Your task to perform on an android device: change alarm snooze length Image 0: 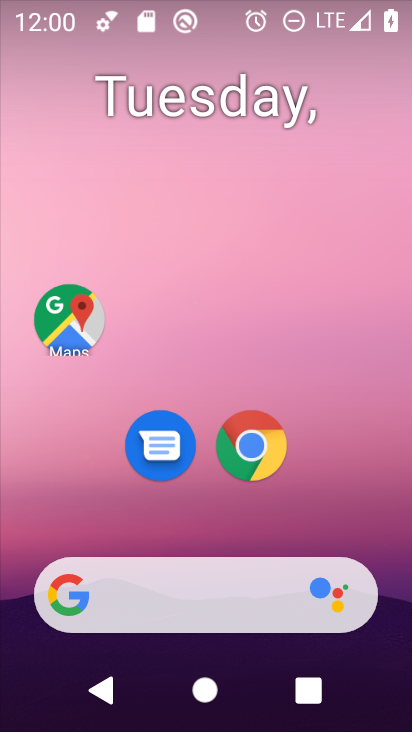
Step 0: drag from (326, 507) to (245, 78)
Your task to perform on an android device: change alarm snooze length Image 1: 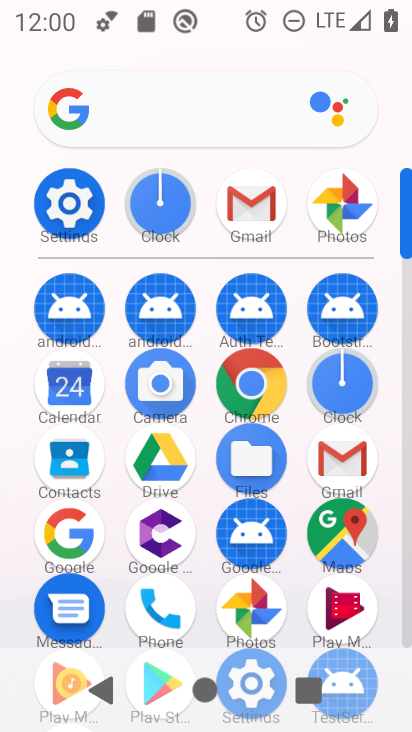
Step 1: click (151, 190)
Your task to perform on an android device: change alarm snooze length Image 2: 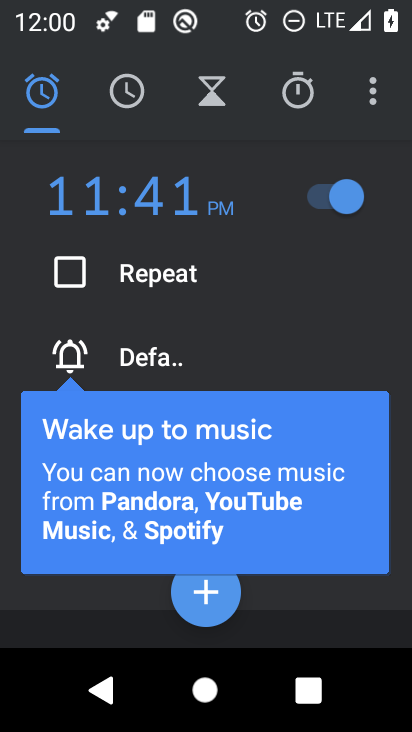
Step 2: click (371, 90)
Your task to perform on an android device: change alarm snooze length Image 3: 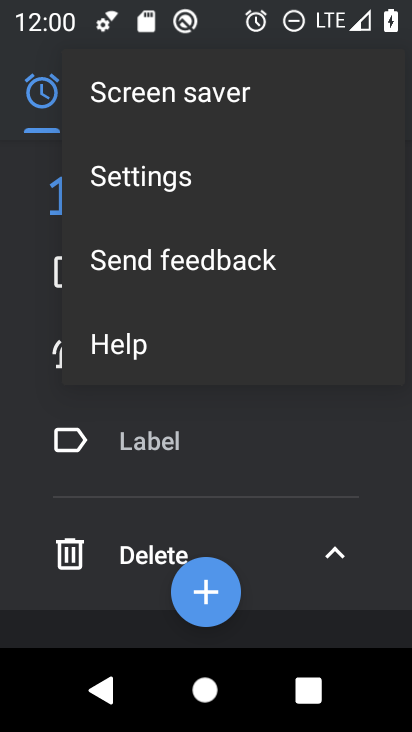
Step 3: click (166, 173)
Your task to perform on an android device: change alarm snooze length Image 4: 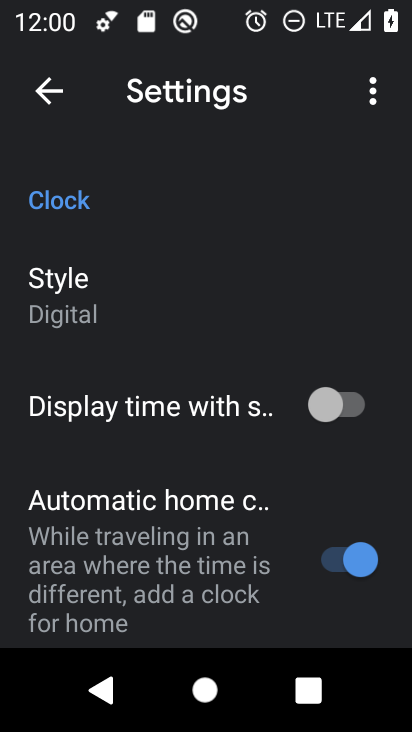
Step 4: drag from (253, 451) to (199, 164)
Your task to perform on an android device: change alarm snooze length Image 5: 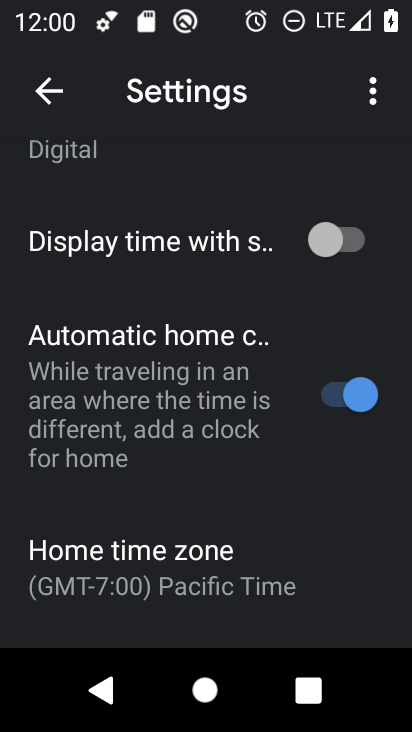
Step 5: drag from (277, 520) to (238, 225)
Your task to perform on an android device: change alarm snooze length Image 6: 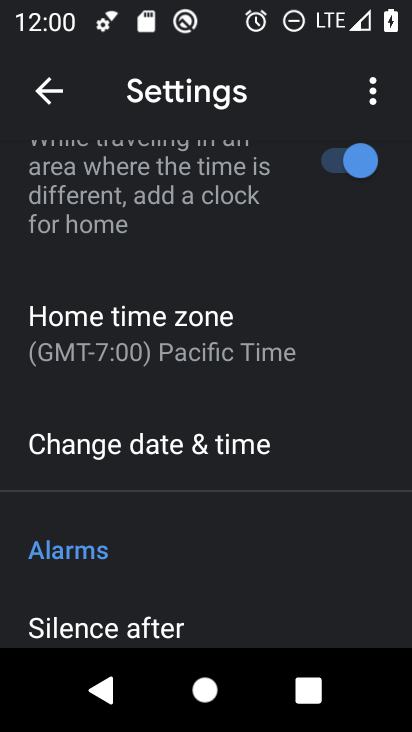
Step 6: drag from (208, 524) to (180, 182)
Your task to perform on an android device: change alarm snooze length Image 7: 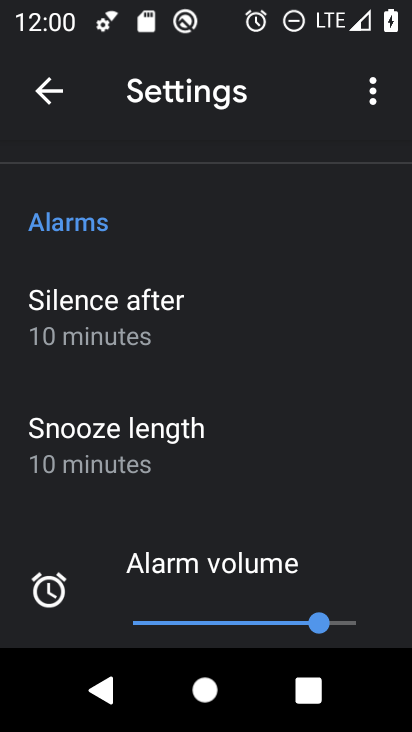
Step 7: click (85, 439)
Your task to perform on an android device: change alarm snooze length Image 8: 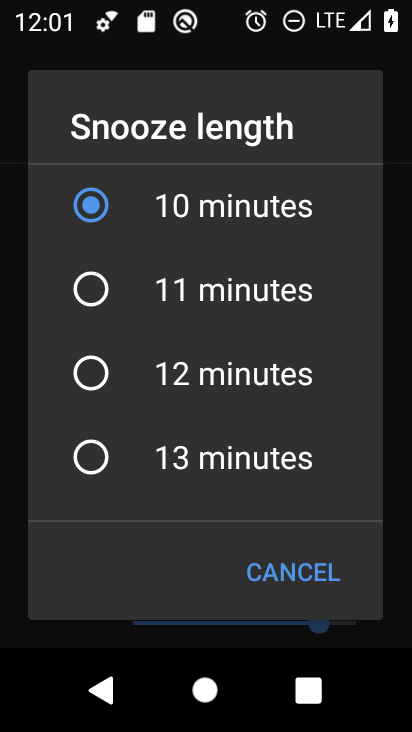
Step 8: click (101, 287)
Your task to perform on an android device: change alarm snooze length Image 9: 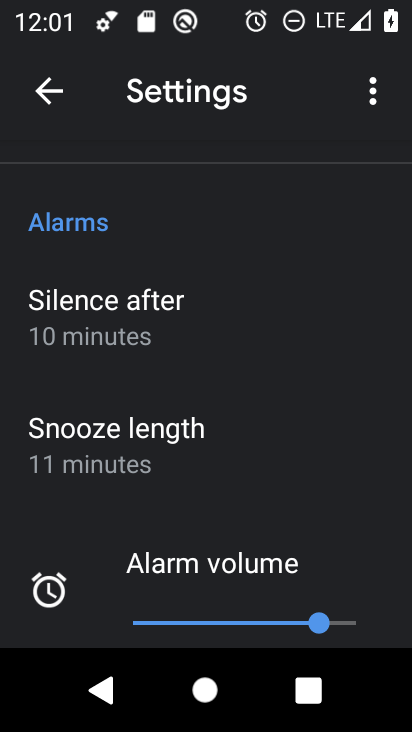
Step 9: task complete